Your task to perform on an android device: Go to Google Image 0: 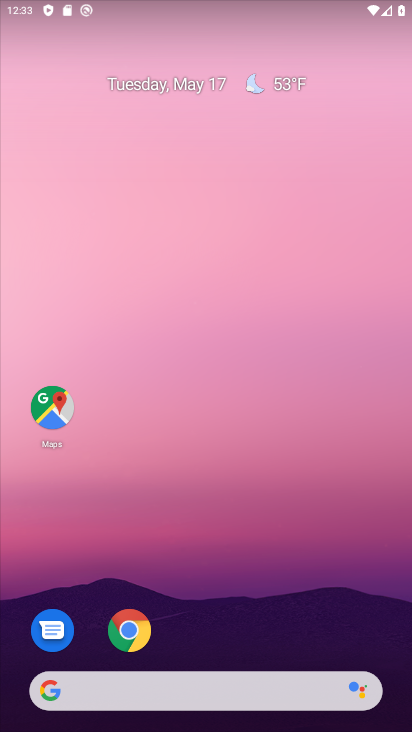
Step 0: drag from (240, 490) to (238, 190)
Your task to perform on an android device: Go to Google Image 1: 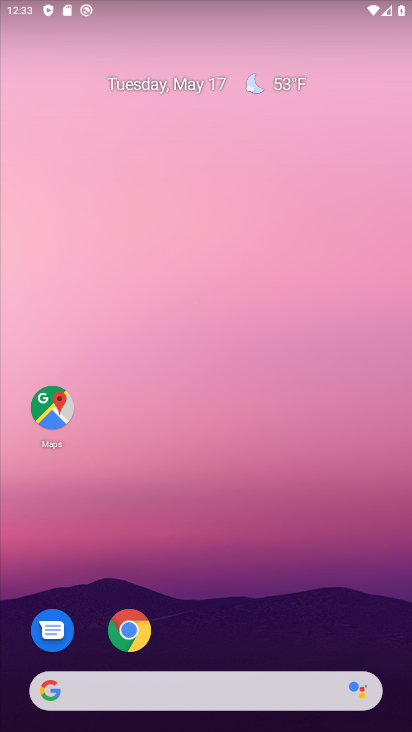
Step 1: drag from (230, 699) to (178, 165)
Your task to perform on an android device: Go to Google Image 2: 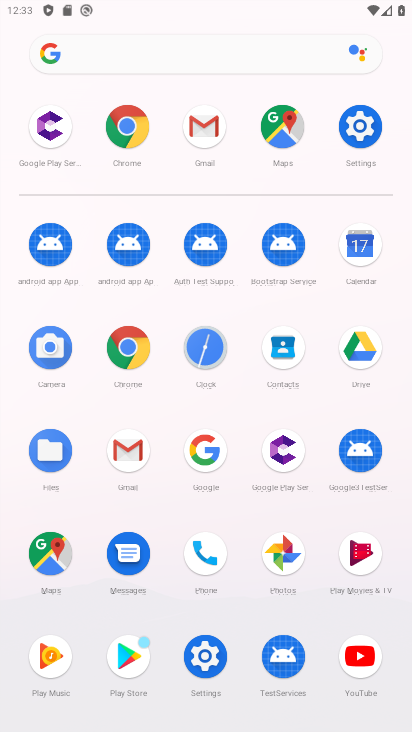
Step 2: click (210, 459)
Your task to perform on an android device: Go to Google Image 3: 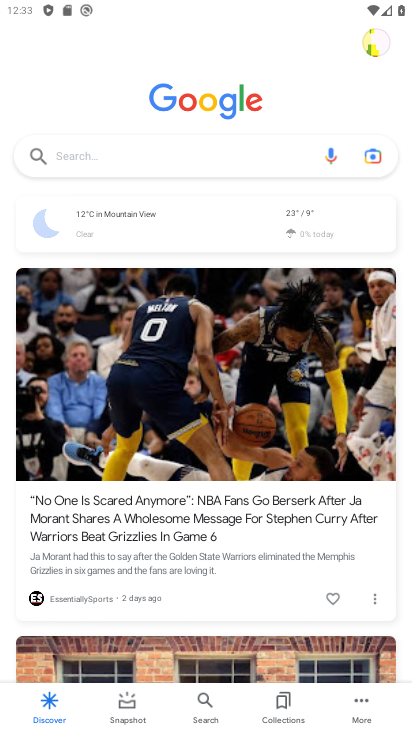
Step 3: task complete